Your task to perform on an android device: Open the Play Movies app and select the watchlist tab. Image 0: 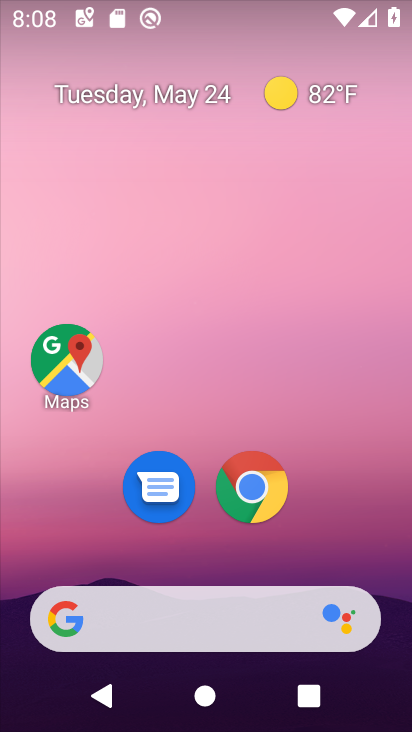
Step 0: drag from (384, 538) to (386, 191)
Your task to perform on an android device: Open the Play Movies app and select the watchlist tab. Image 1: 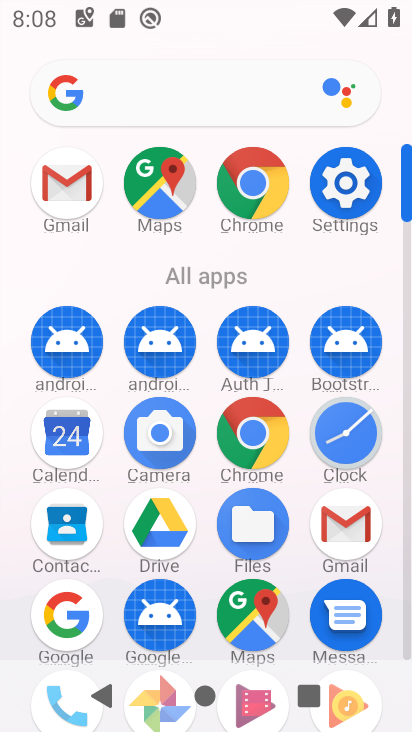
Step 1: drag from (282, 589) to (293, 331)
Your task to perform on an android device: Open the Play Movies app and select the watchlist tab. Image 2: 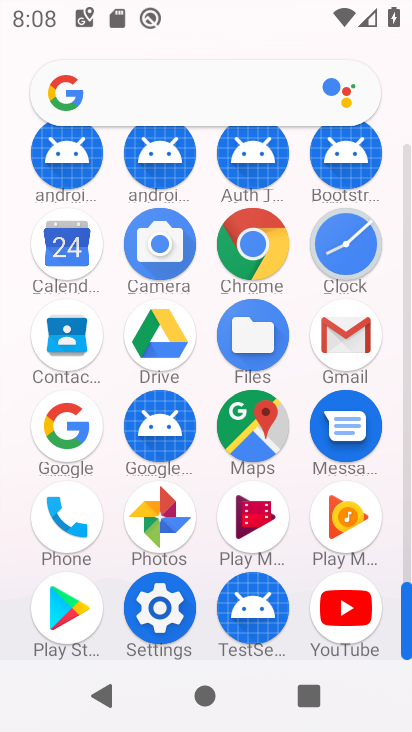
Step 2: click (262, 520)
Your task to perform on an android device: Open the Play Movies app and select the watchlist tab. Image 3: 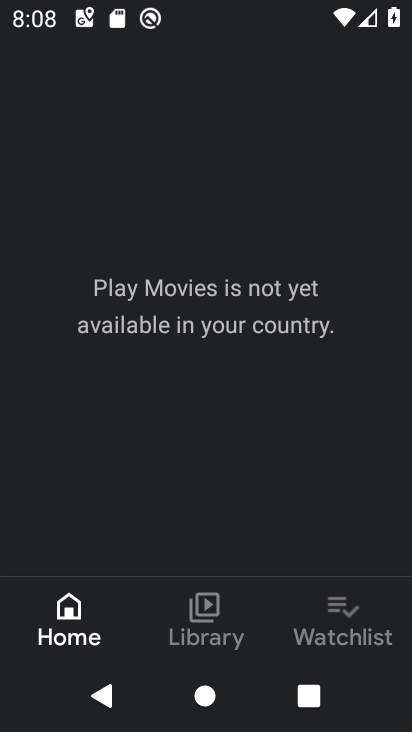
Step 3: click (337, 632)
Your task to perform on an android device: Open the Play Movies app and select the watchlist tab. Image 4: 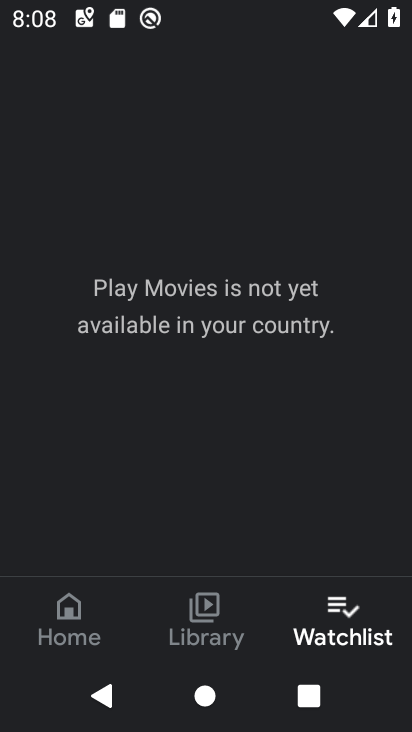
Step 4: task complete